Your task to perform on an android device: turn on javascript in the chrome app Image 0: 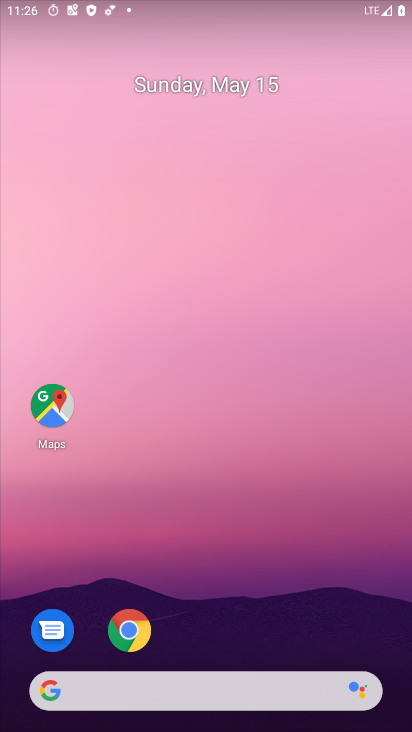
Step 0: click (133, 634)
Your task to perform on an android device: turn on javascript in the chrome app Image 1: 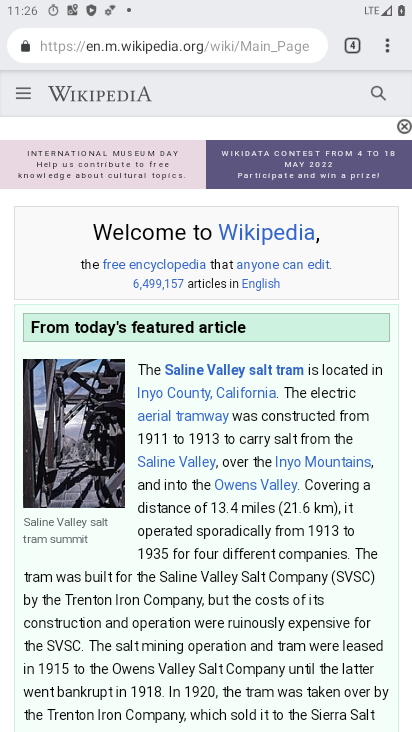
Step 1: drag from (389, 47) to (233, 541)
Your task to perform on an android device: turn on javascript in the chrome app Image 2: 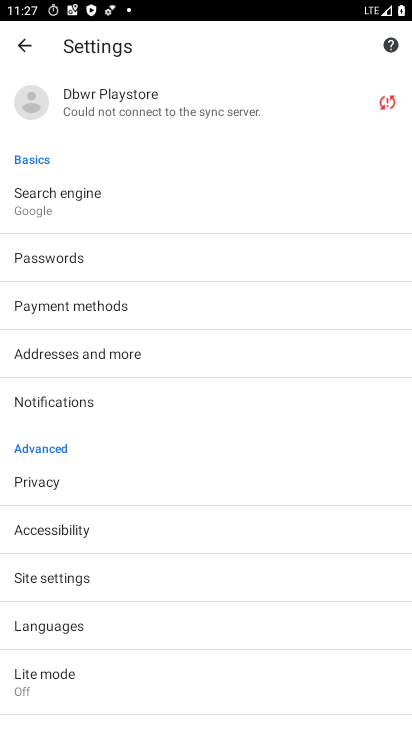
Step 2: click (41, 575)
Your task to perform on an android device: turn on javascript in the chrome app Image 3: 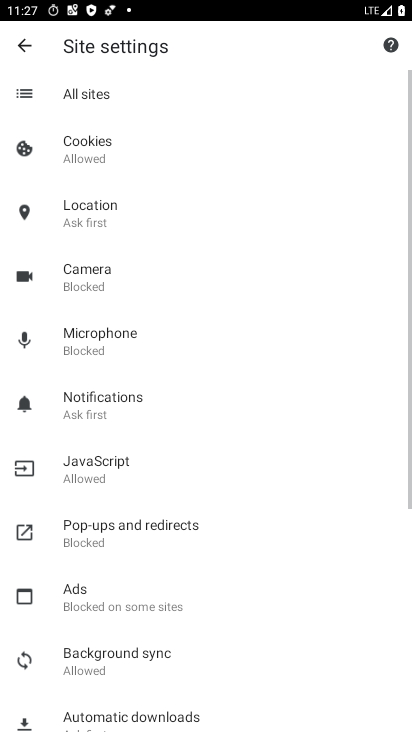
Step 3: click (88, 463)
Your task to perform on an android device: turn on javascript in the chrome app Image 4: 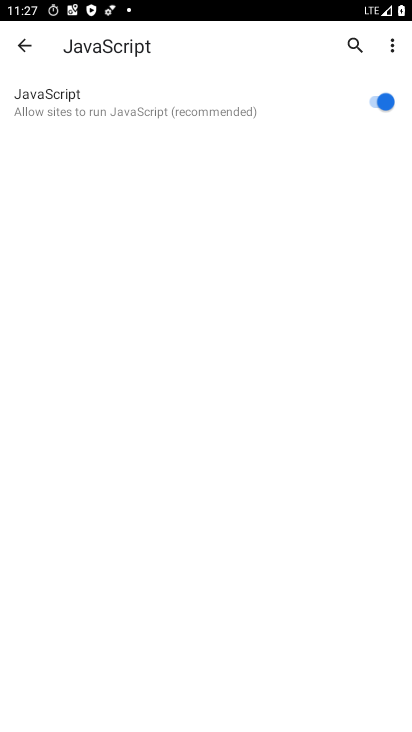
Step 4: task complete